Your task to perform on an android device: turn on sleep mode Image 0: 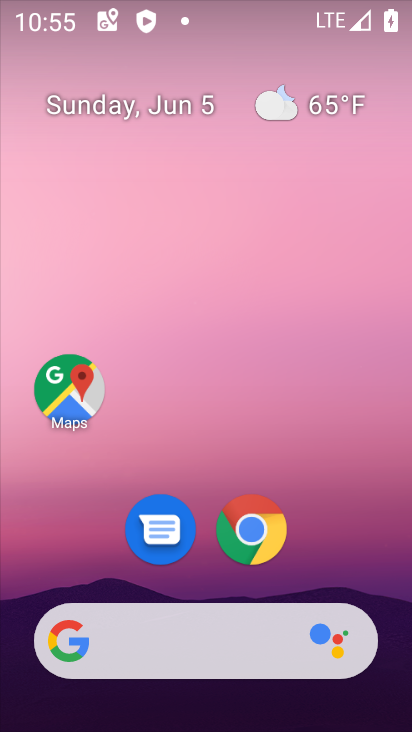
Step 0: drag from (178, 610) to (198, 7)
Your task to perform on an android device: turn on sleep mode Image 1: 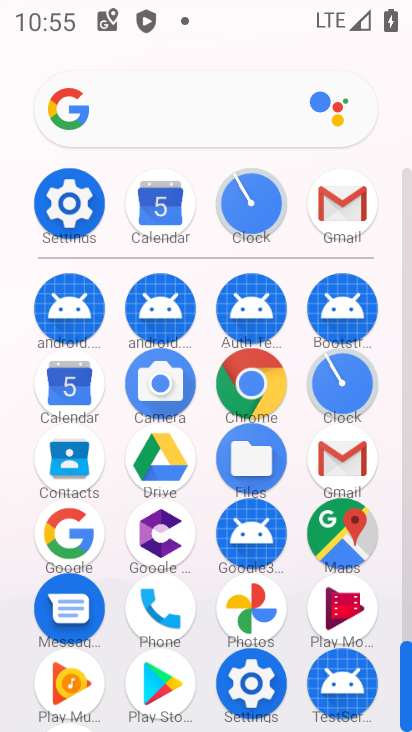
Step 1: click (65, 194)
Your task to perform on an android device: turn on sleep mode Image 2: 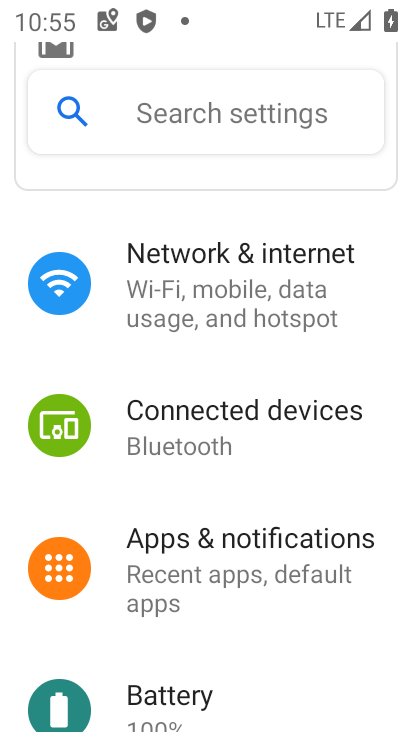
Step 2: drag from (257, 580) to (233, 34)
Your task to perform on an android device: turn on sleep mode Image 3: 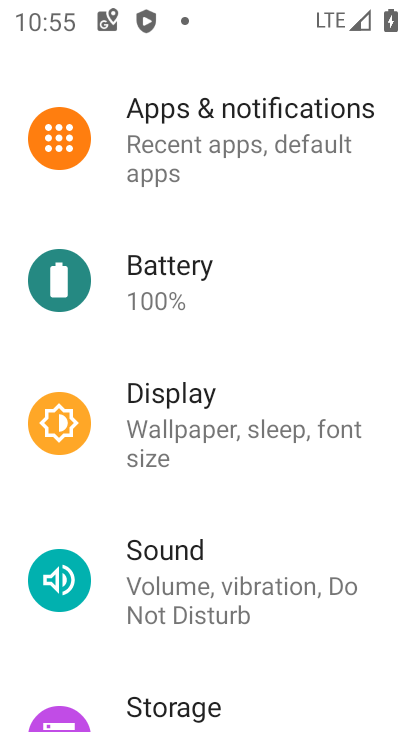
Step 3: click (286, 417)
Your task to perform on an android device: turn on sleep mode Image 4: 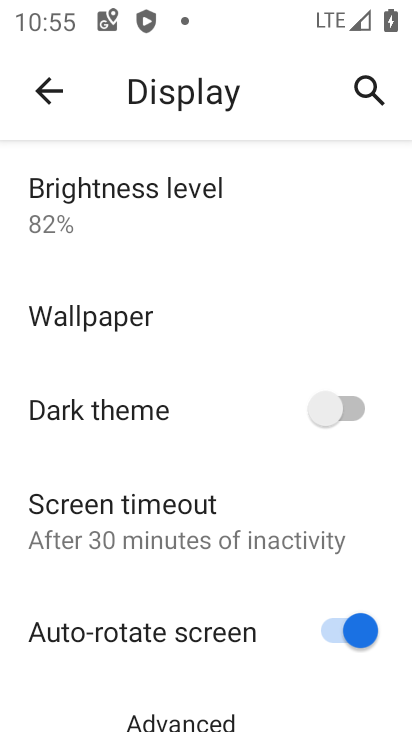
Step 4: task complete